Your task to perform on an android device: turn on location history Image 0: 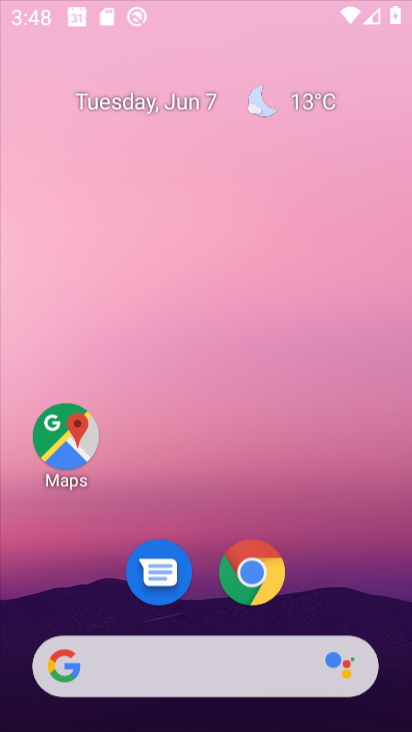
Step 0: press home button
Your task to perform on an android device: turn on location history Image 1: 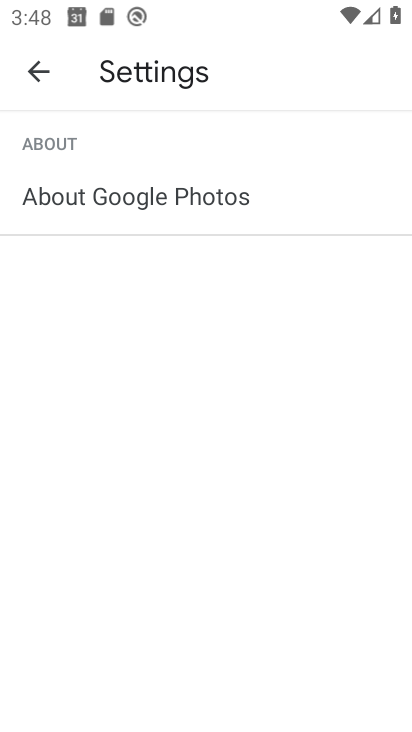
Step 1: drag from (338, 8) to (291, 316)
Your task to perform on an android device: turn on location history Image 2: 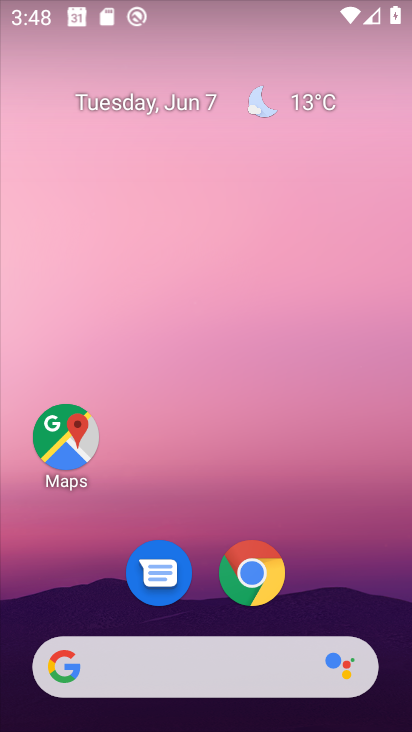
Step 2: drag from (386, 680) to (360, 361)
Your task to perform on an android device: turn on location history Image 3: 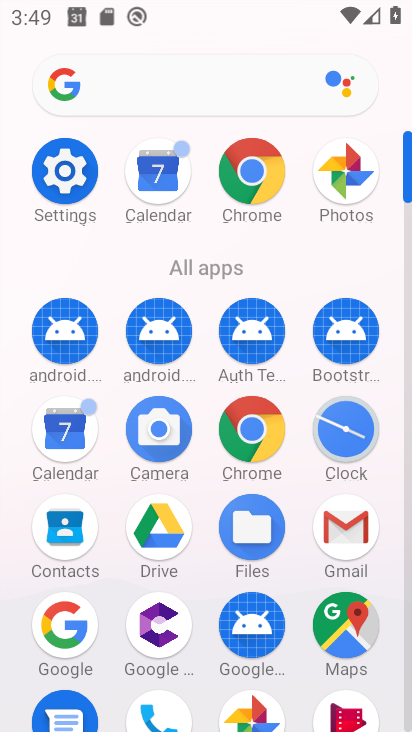
Step 3: click (55, 174)
Your task to perform on an android device: turn on location history Image 4: 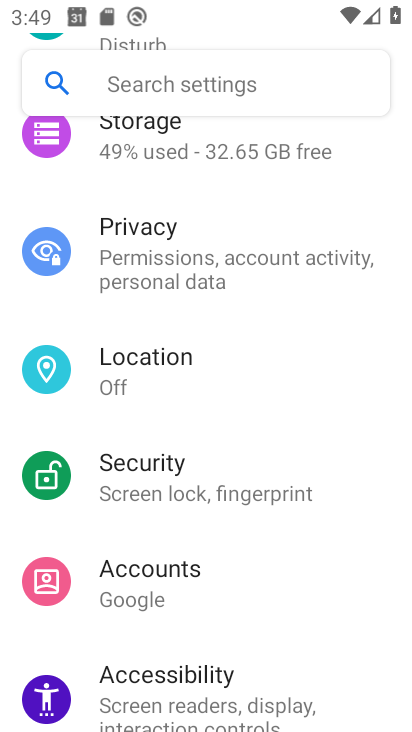
Step 4: press home button
Your task to perform on an android device: turn on location history Image 5: 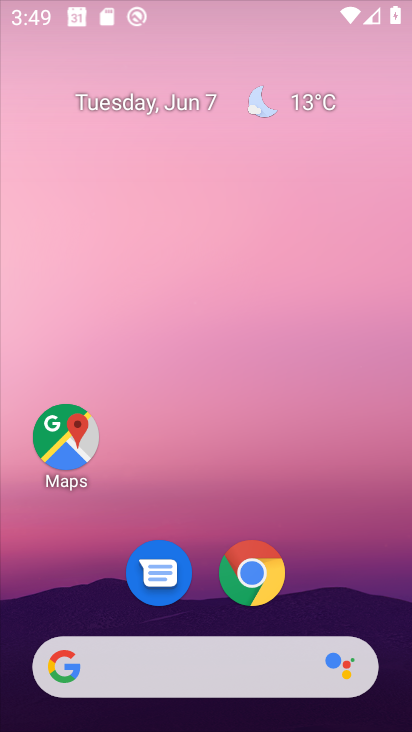
Step 5: drag from (255, 517) to (299, 22)
Your task to perform on an android device: turn on location history Image 6: 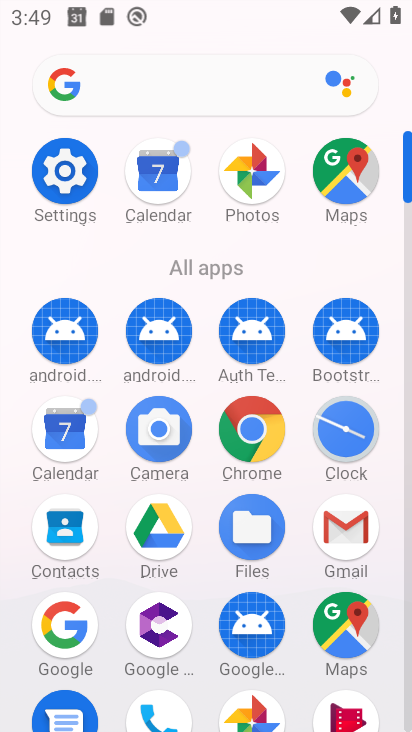
Step 6: click (358, 619)
Your task to perform on an android device: turn on location history Image 7: 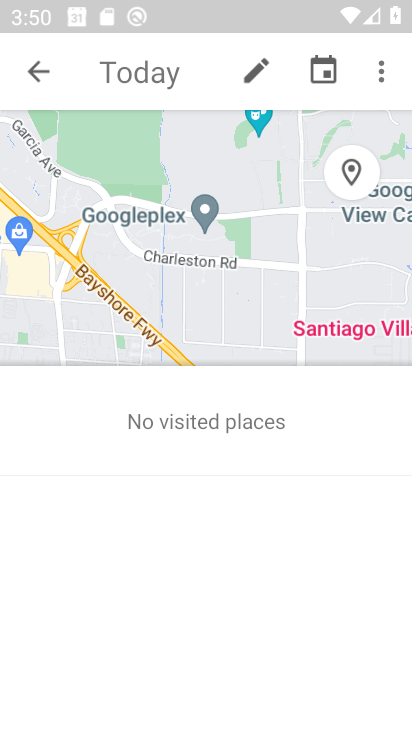
Step 7: click (379, 67)
Your task to perform on an android device: turn on location history Image 8: 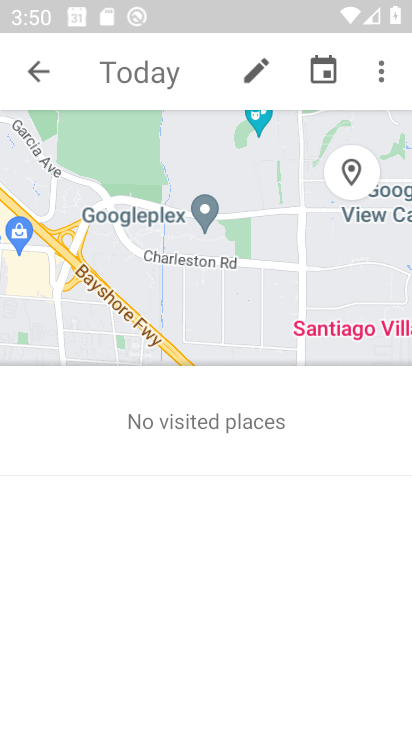
Step 8: click (379, 69)
Your task to perform on an android device: turn on location history Image 9: 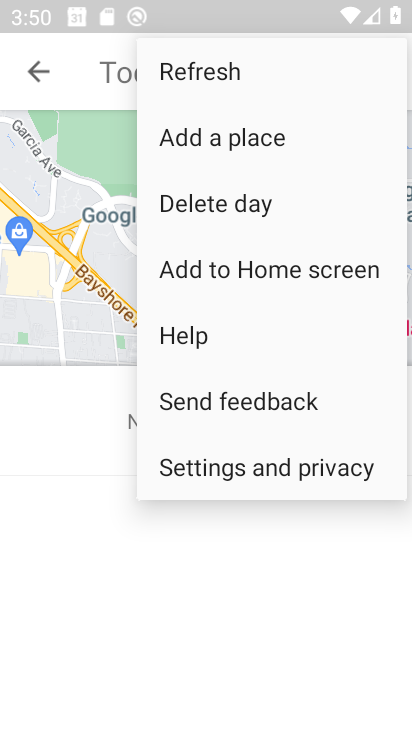
Step 9: click (222, 473)
Your task to perform on an android device: turn on location history Image 10: 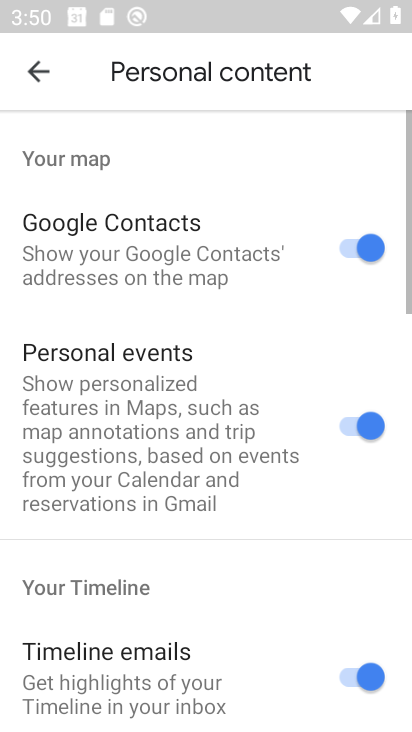
Step 10: drag from (217, 559) to (212, 169)
Your task to perform on an android device: turn on location history Image 11: 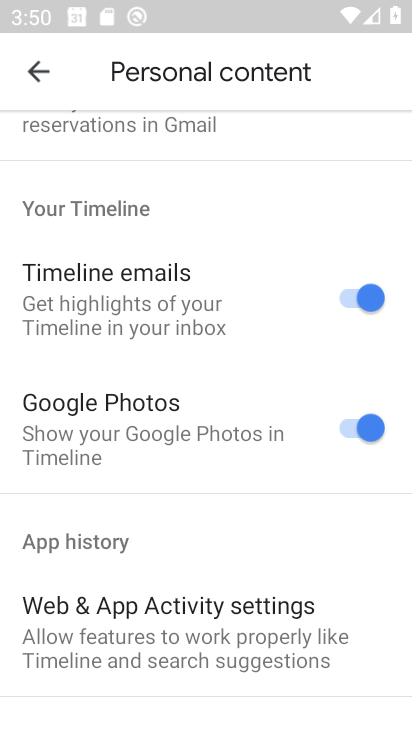
Step 11: drag from (185, 338) to (198, 154)
Your task to perform on an android device: turn on location history Image 12: 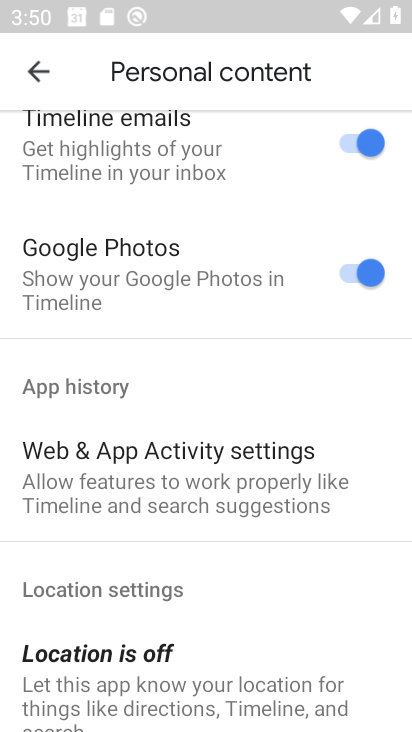
Step 12: drag from (181, 517) to (228, 140)
Your task to perform on an android device: turn on location history Image 13: 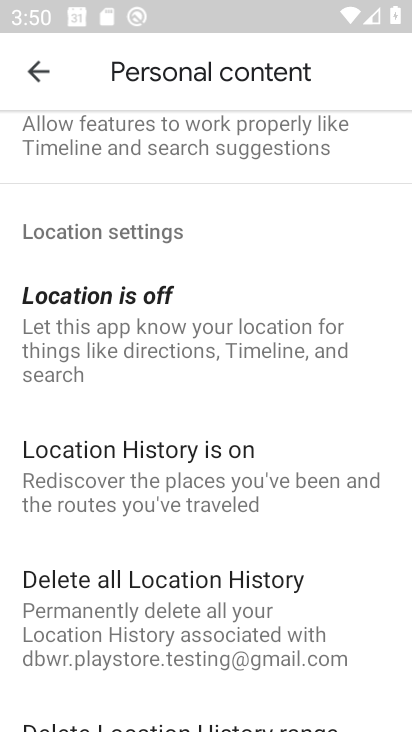
Step 13: click (152, 472)
Your task to perform on an android device: turn on location history Image 14: 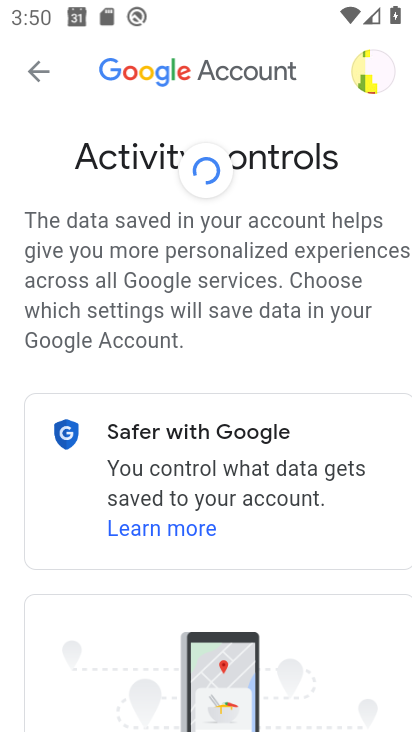
Step 14: task complete